Your task to perform on an android device: toggle location history Image 0: 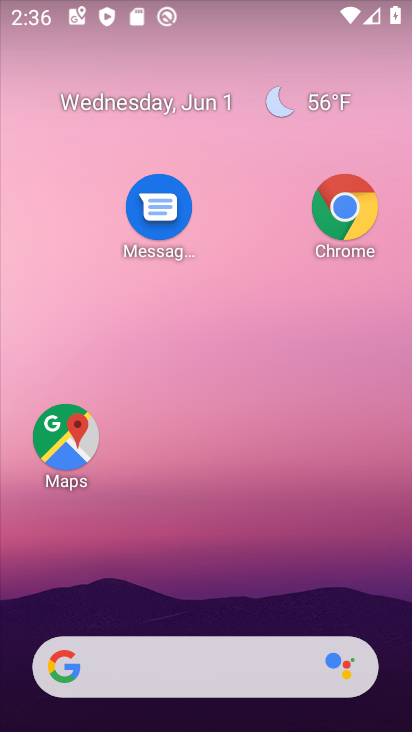
Step 0: drag from (262, 565) to (346, 21)
Your task to perform on an android device: toggle location history Image 1: 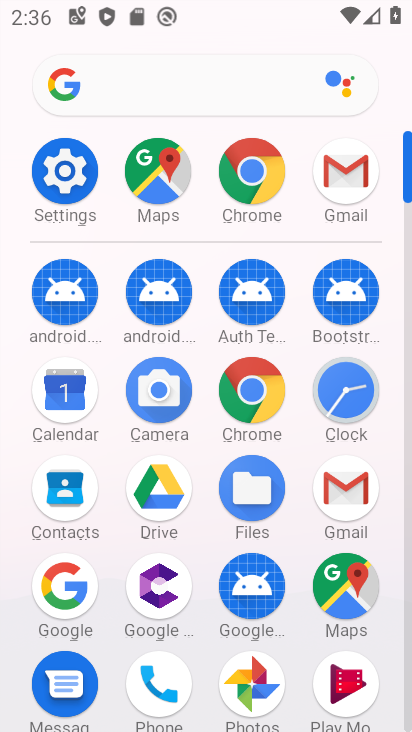
Step 1: click (62, 188)
Your task to perform on an android device: toggle location history Image 2: 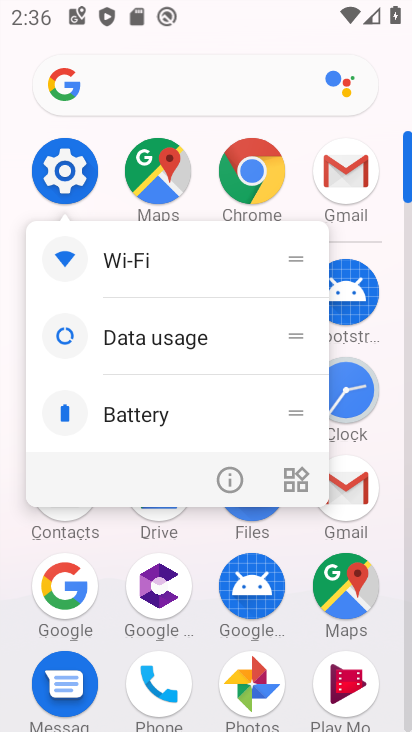
Step 2: click (240, 482)
Your task to perform on an android device: toggle location history Image 3: 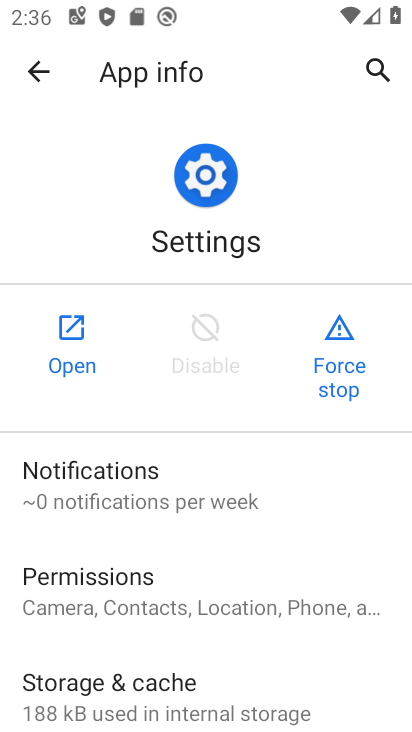
Step 3: click (87, 346)
Your task to perform on an android device: toggle location history Image 4: 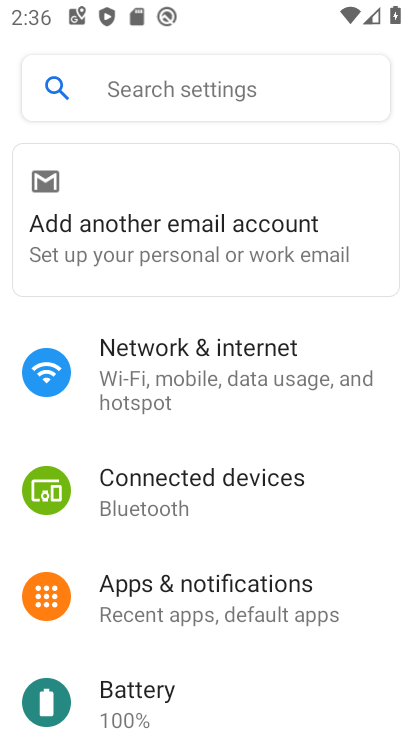
Step 4: drag from (270, 577) to (401, 86)
Your task to perform on an android device: toggle location history Image 5: 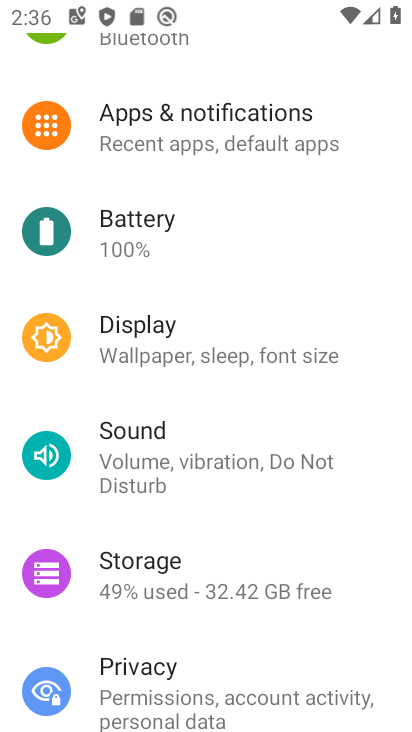
Step 5: drag from (238, 564) to (287, 175)
Your task to perform on an android device: toggle location history Image 6: 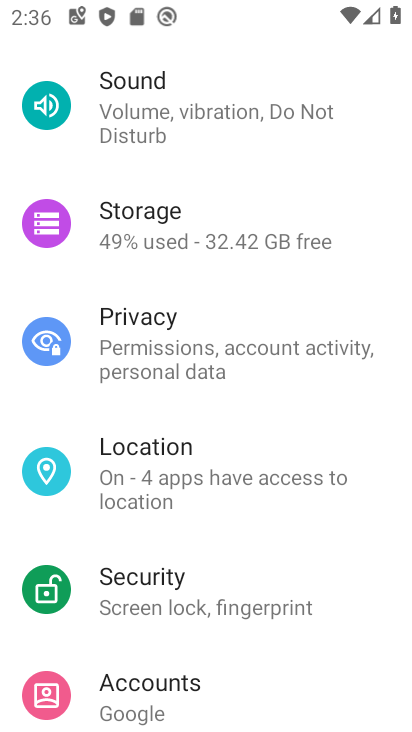
Step 6: drag from (257, 654) to (303, 216)
Your task to perform on an android device: toggle location history Image 7: 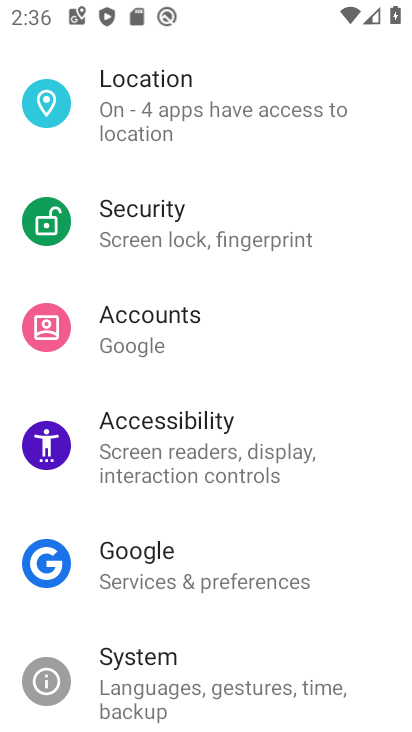
Step 7: click (192, 103)
Your task to perform on an android device: toggle location history Image 8: 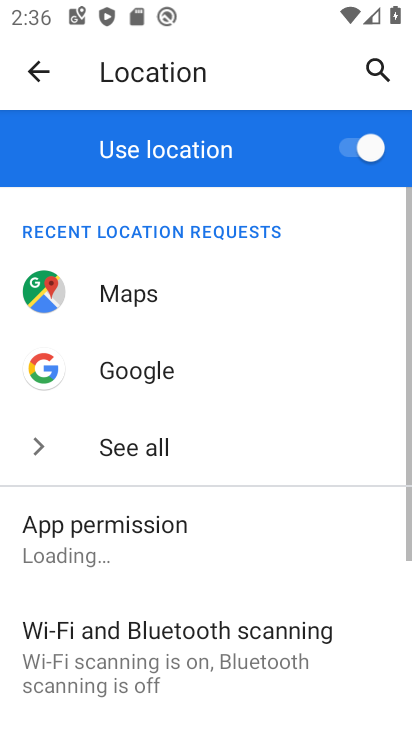
Step 8: drag from (227, 565) to (271, 74)
Your task to perform on an android device: toggle location history Image 9: 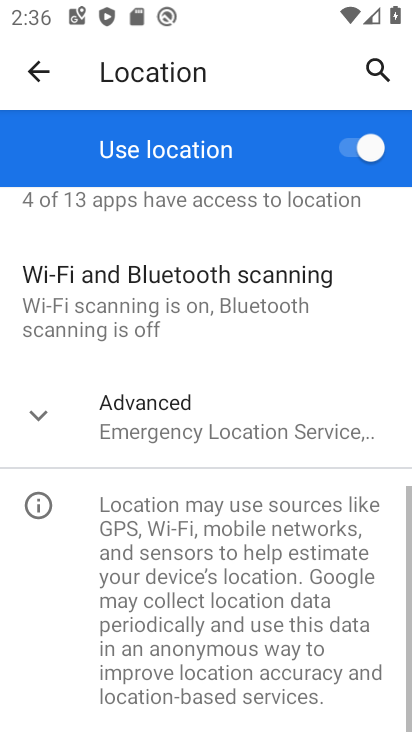
Step 9: click (184, 414)
Your task to perform on an android device: toggle location history Image 10: 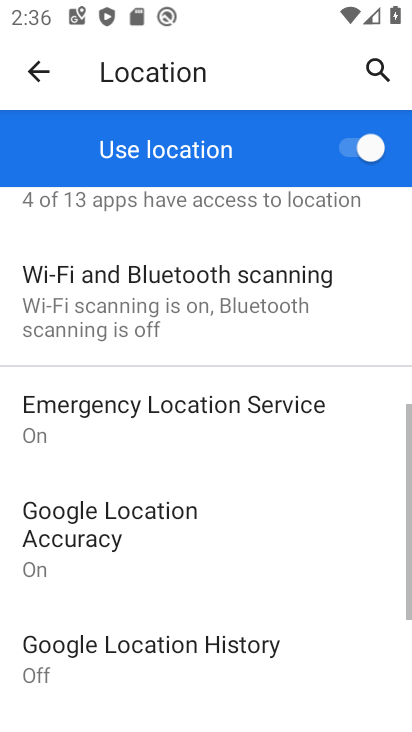
Step 10: drag from (230, 529) to (270, 246)
Your task to perform on an android device: toggle location history Image 11: 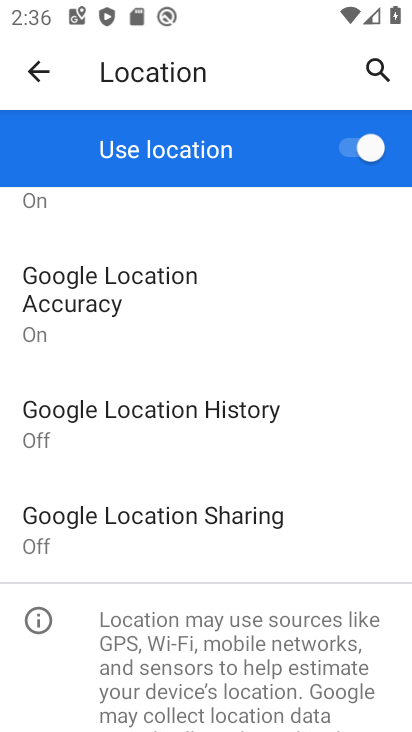
Step 11: click (210, 417)
Your task to perform on an android device: toggle location history Image 12: 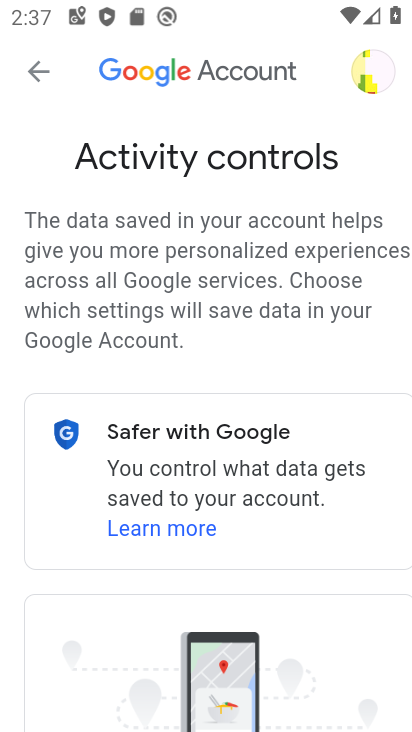
Step 12: drag from (227, 592) to (309, 158)
Your task to perform on an android device: toggle location history Image 13: 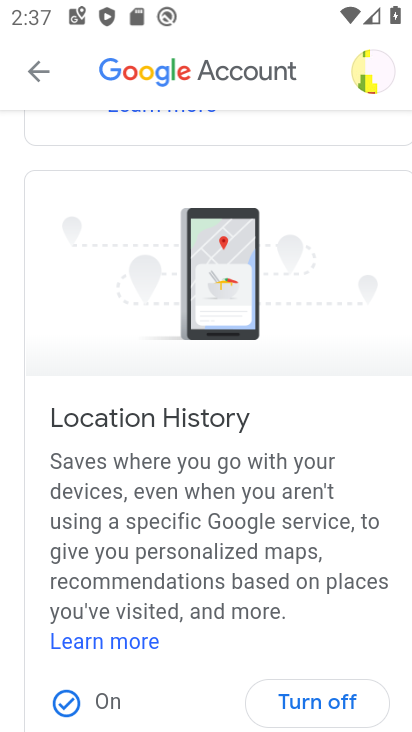
Step 13: drag from (198, 614) to (208, 279)
Your task to perform on an android device: toggle location history Image 14: 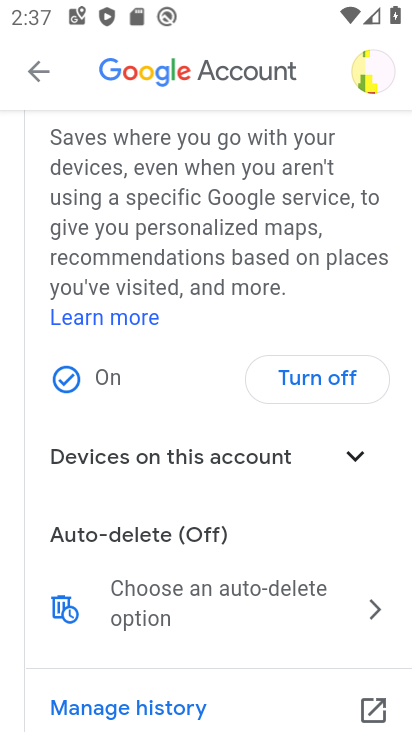
Step 14: drag from (237, 507) to (242, 335)
Your task to perform on an android device: toggle location history Image 15: 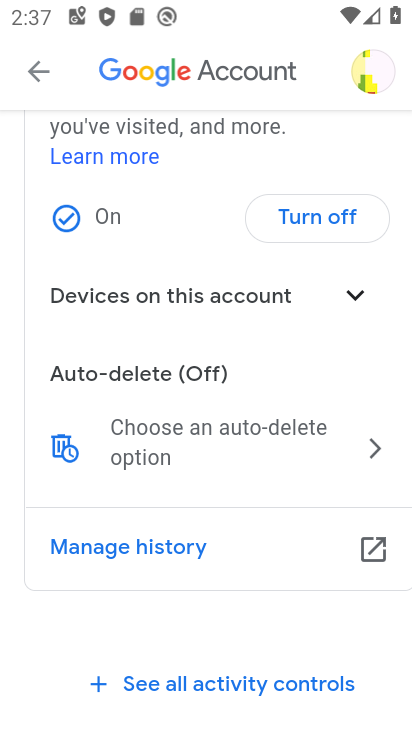
Step 15: drag from (242, 311) to (259, 623)
Your task to perform on an android device: toggle location history Image 16: 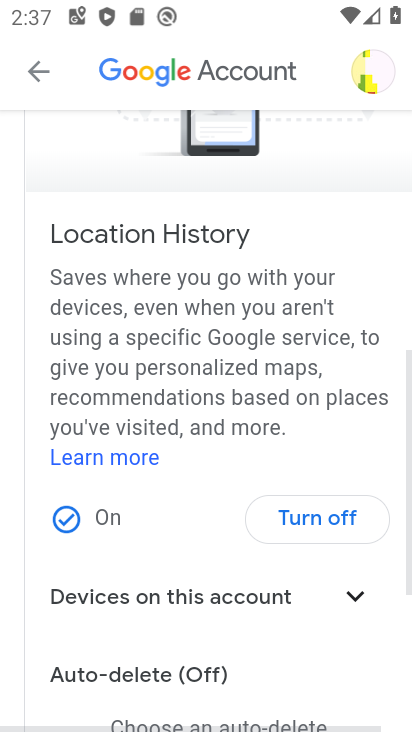
Step 16: drag from (286, 508) to (320, 281)
Your task to perform on an android device: toggle location history Image 17: 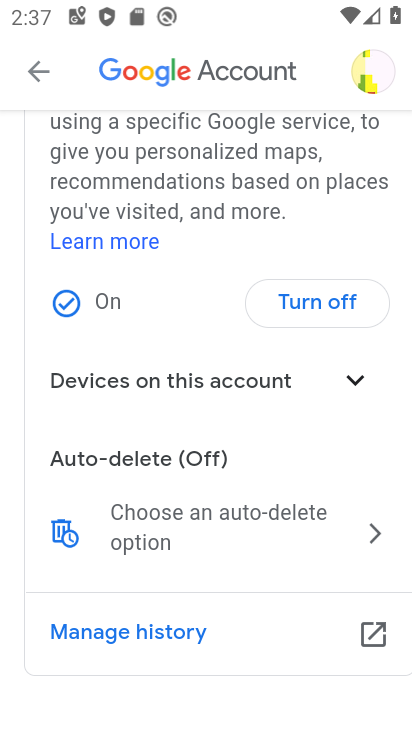
Step 17: drag from (246, 193) to (220, 722)
Your task to perform on an android device: toggle location history Image 18: 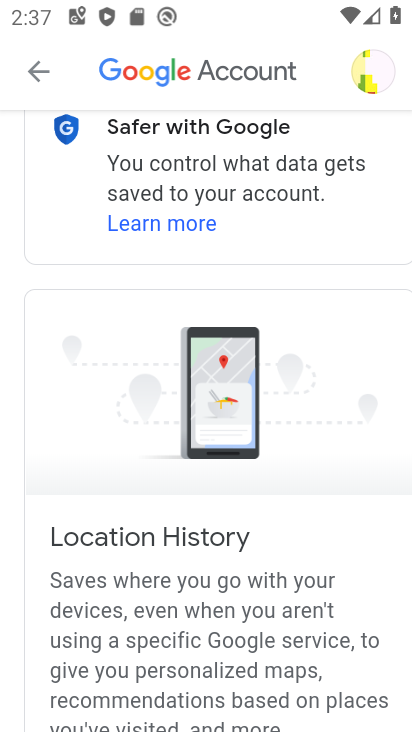
Step 18: drag from (250, 226) to (355, 719)
Your task to perform on an android device: toggle location history Image 19: 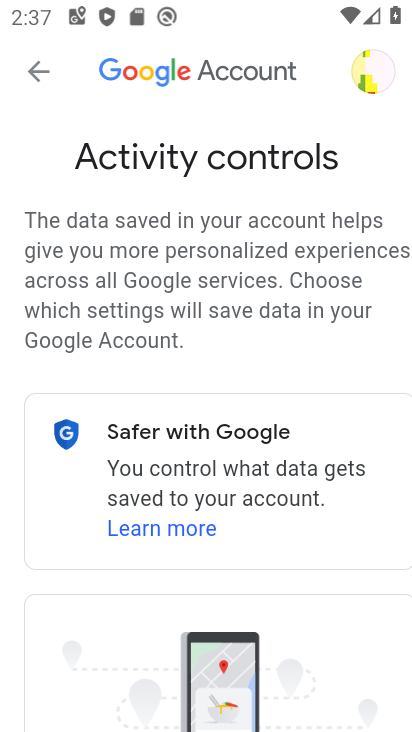
Step 19: drag from (199, 503) to (260, 148)
Your task to perform on an android device: toggle location history Image 20: 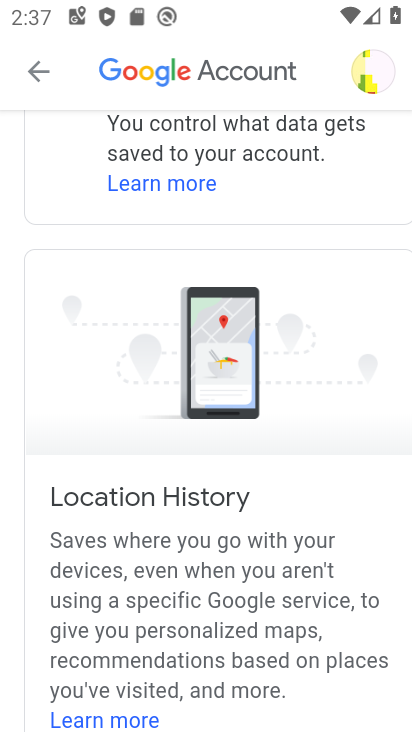
Step 20: drag from (261, 552) to (320, 59)
Your task to perform on an android device: toggle location history Image 21: 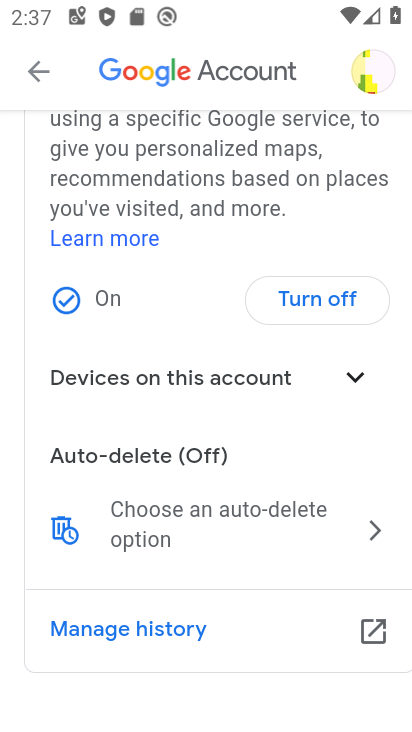
Step 21: click (62, 521)
Your task to perform on an android device: toggle location history Image 22: 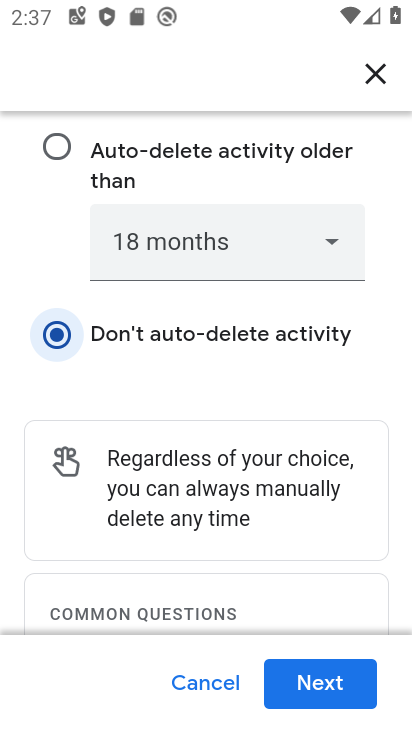
Step 22: click (370, 88)
Your task to perform on an android device: toggle location history Image 23: 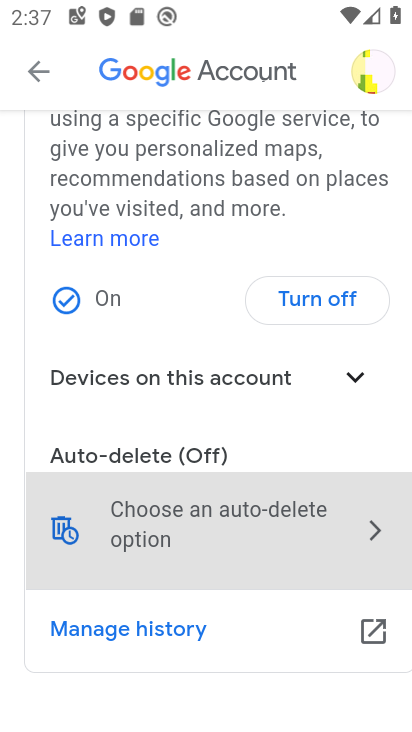
Step 23: click (341, 307)
Your task to perform on an android device: toggle location history Image 24: 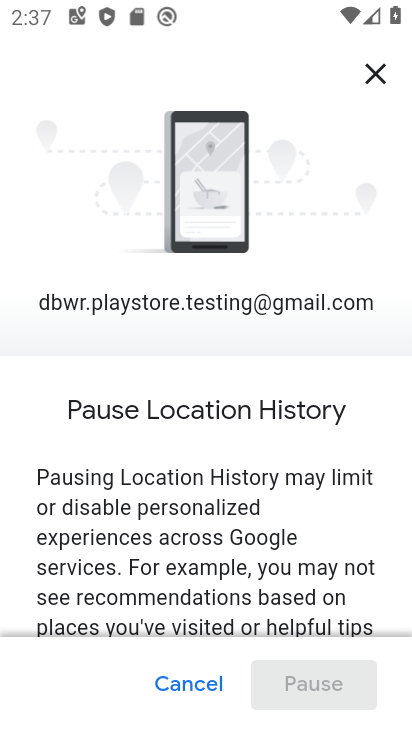
Step 24: drag from (201, 505) to (283, 274)
Your task to perform on an android device: toggle location history Image 25: 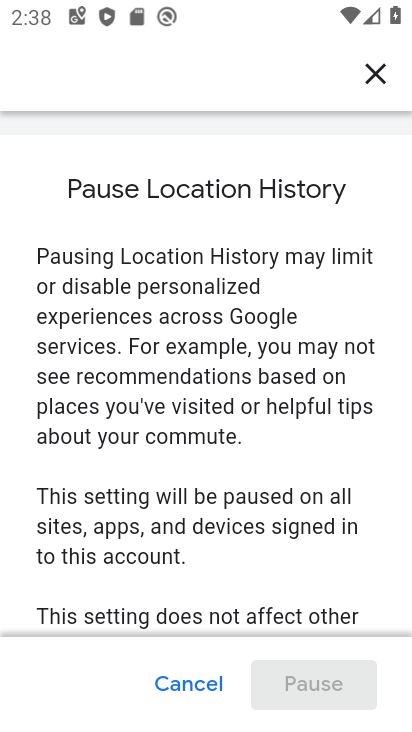
Step 25: drag from (198, 558) to (268, 34)
Your task to perform on an android device: toggle location history Image 26: 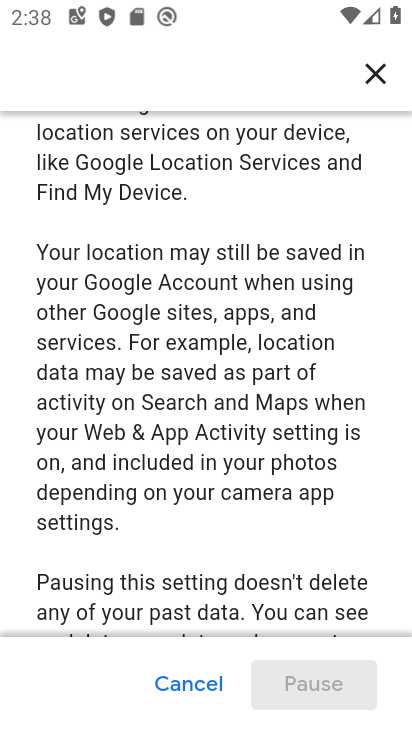
Step 26: drag from (219, 554) to (233, 129)
Your task to perform on an android device: toggle location history Image 27: 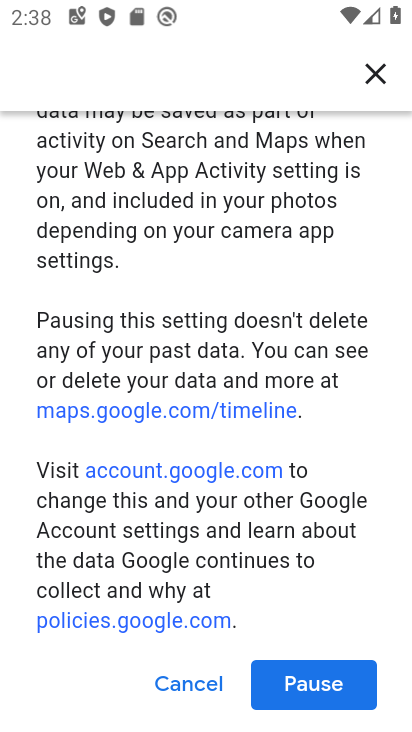
Step 27: drag from (277, 583) to (325, 204)
Your task to perform on an android device: toggle location history Image 28: 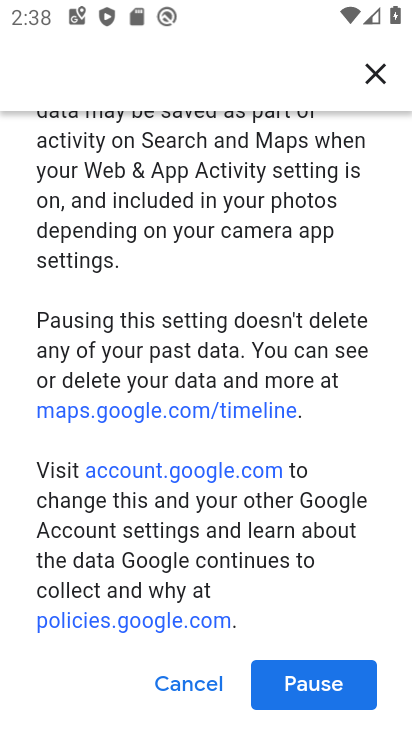
Step 28: click (307, 684)
Your task to perform on an android device: toggle location history Image 29: 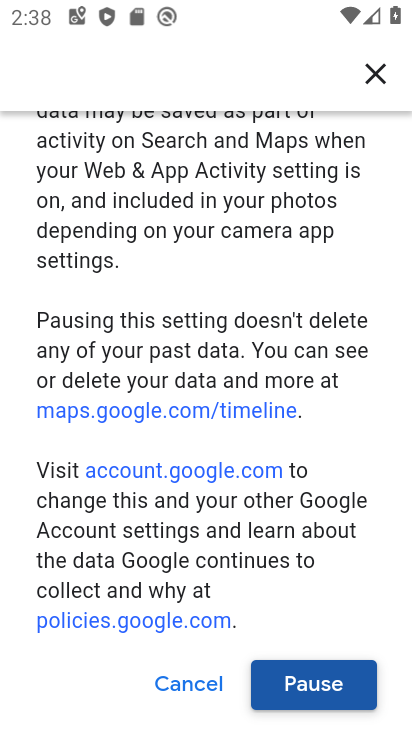
Step 29: click (313, 677)
Your task to perform on an android device: toggle location history Image 30: 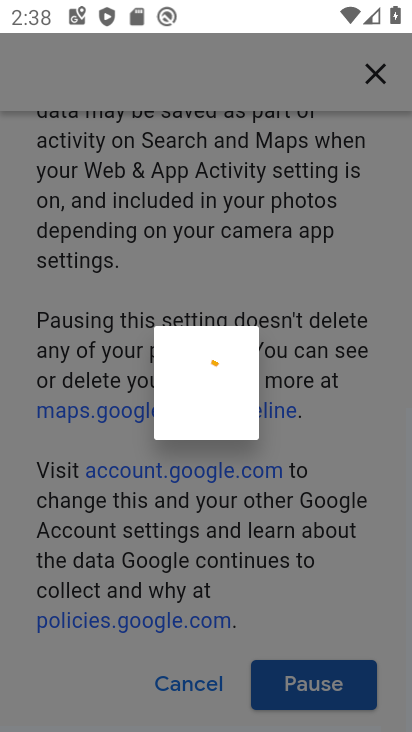
Step 30: drag from (341, 508) to (360, 94)
Your task to perform on an android device: toggle location history Image 31: 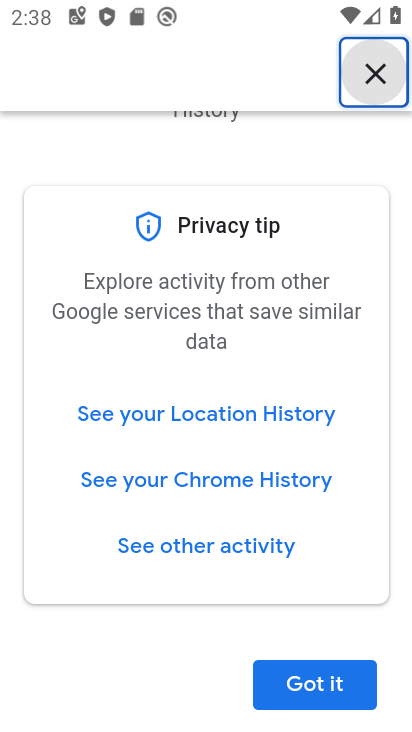
Step 31: drag from (304, 556) to (304, 276)
Your task to perform on an android device: toggle location history Image 32: 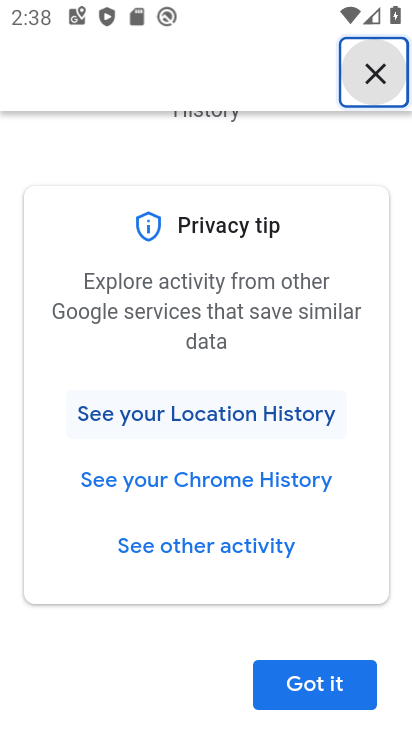
Step 32: click (336, 694)
Your task to perform on an android device: toggle location history Image 33: 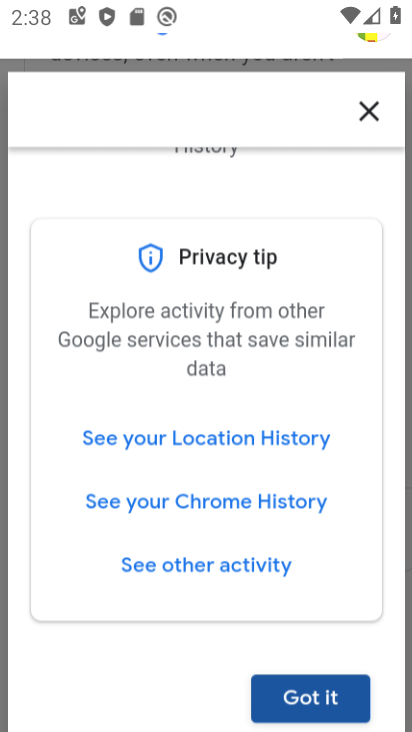
Step 33: task complete